Your task to perform on an android device: open chrome privacy settings Image 0: 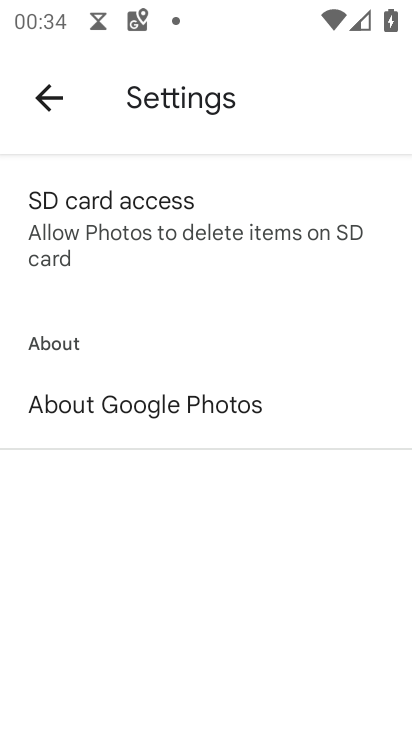
Step 0: press home button
Your task to perform on an android device: open chrome privacy settings Image 1: 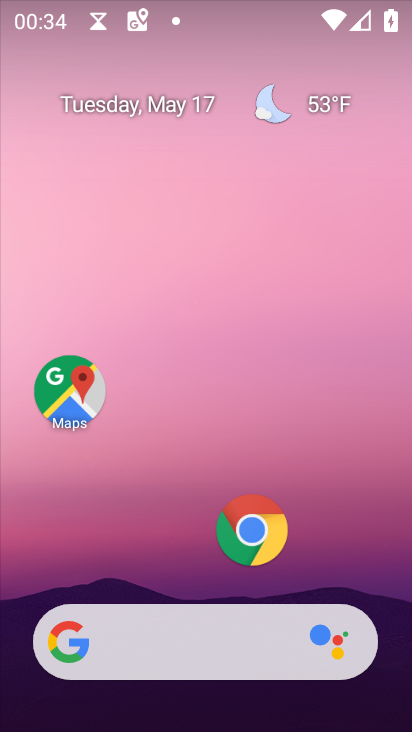
Step 1: click (237, 544)
Your task to perform on an android device: open chrome privacy settings Image 2: 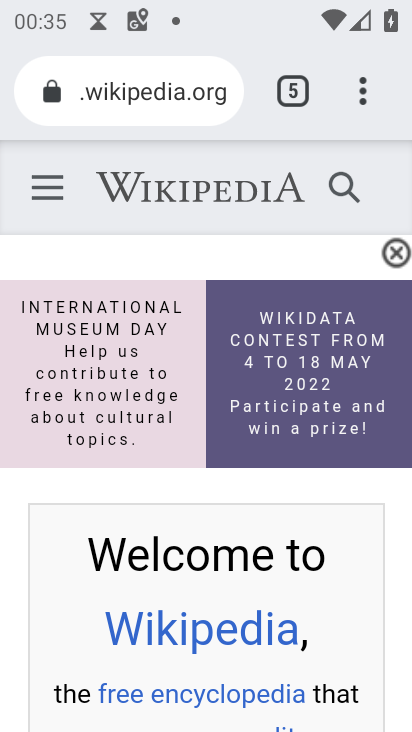
Step 2: click (363, 96)
Your task to perform on an android device: open chrome privacy settings Image 3: 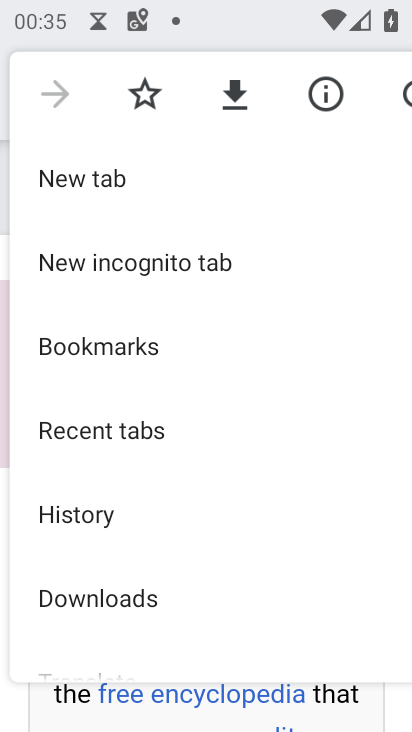
Step 3: drag from (222, 498) to (232, 154)
Your task to perform on an android device: open chrome privacy settings Image 4: 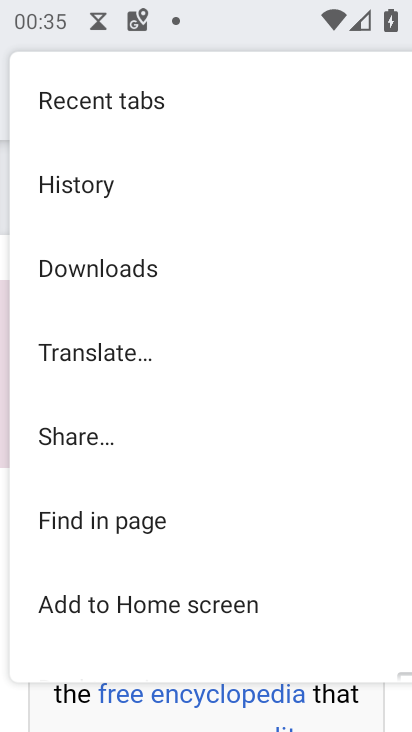
Step 4: drag from (232, 154) to (210, 27)
Your task to perform on an android device: open chrome privacy settings Image 5: 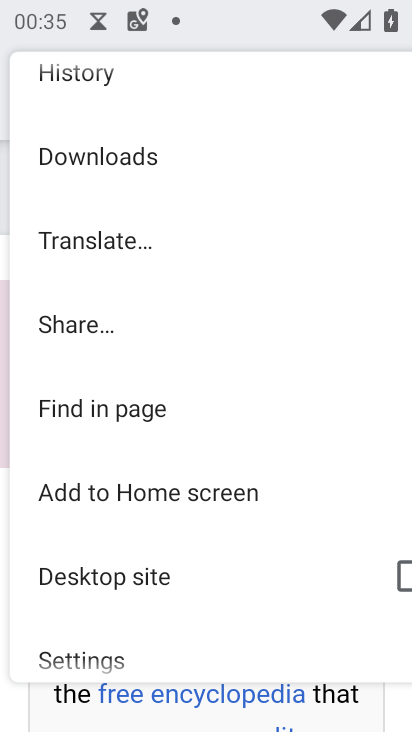
Step 5: click (108, 655)
Your task to perform on an android device: open chrome privacy settings Image 6: 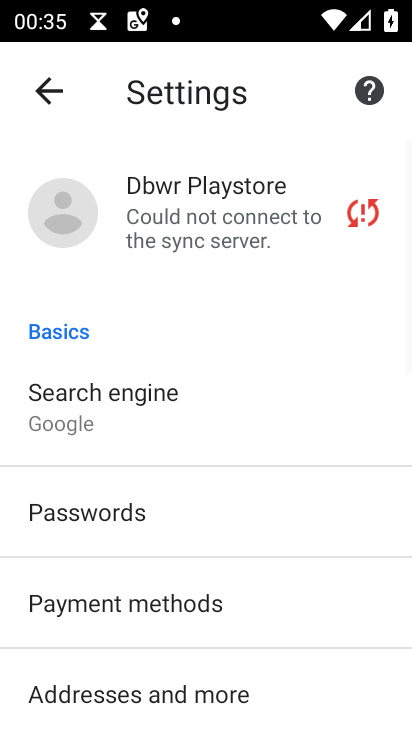
Step 6: drag from (205, 646) to (230, 240)
Your task to perform on an android device: open chrome privacy settings Image 7: 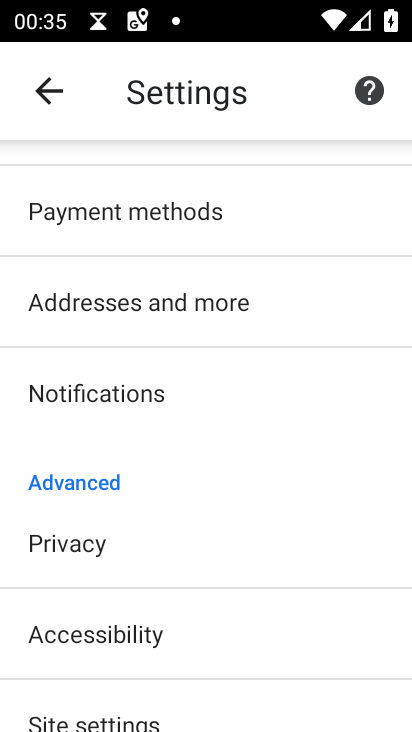
Step 7: drag from (189, 623) to (238, 227)
Your task to perform on an android device: open chrome privacy settings Image 8: 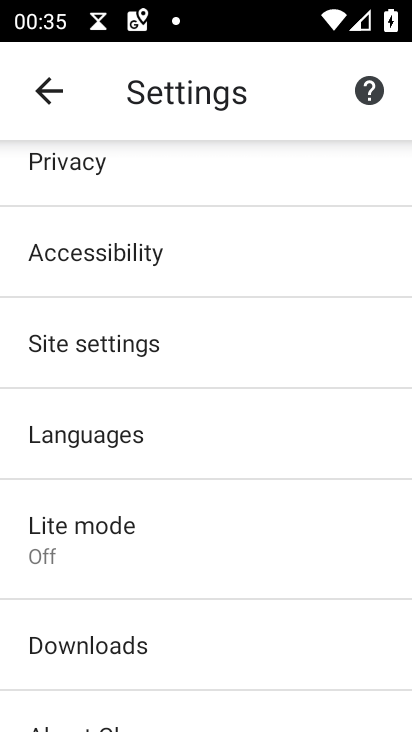
Step 8: click (177, 168)
Your task to perform on an android device: open chrome privacy settings Image 9: 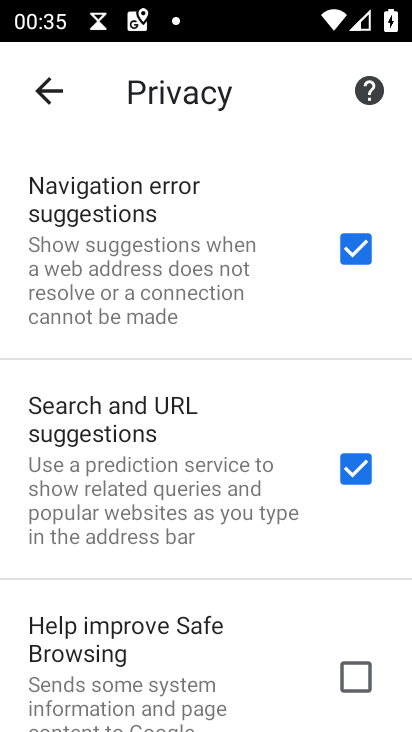
Step 9: task complete